Your task to perform on an android device: Open notification settings Image 0: 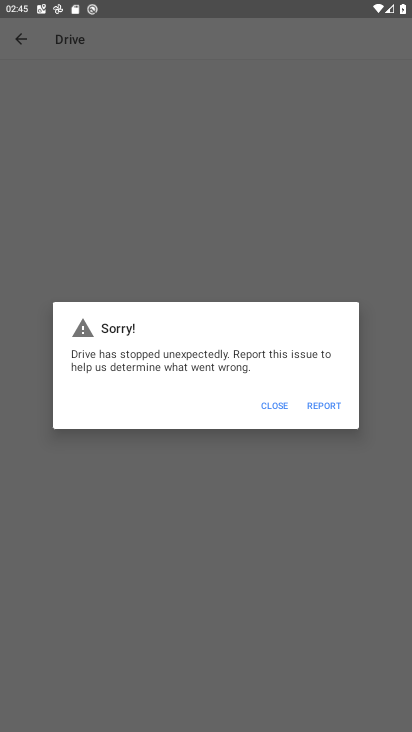
Step 0: press home button
Your task to perform on an android device: Open notification settings Image 1: 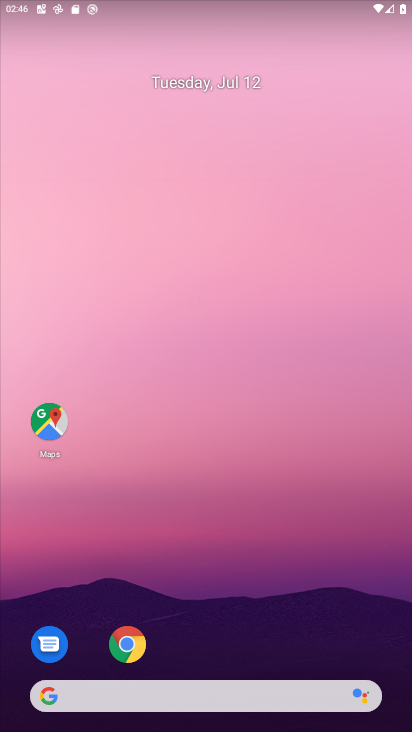
Step 1: drag from (236, 649) to (128, 82)
Your task to perform on an android device: Open notification settings Image 2: 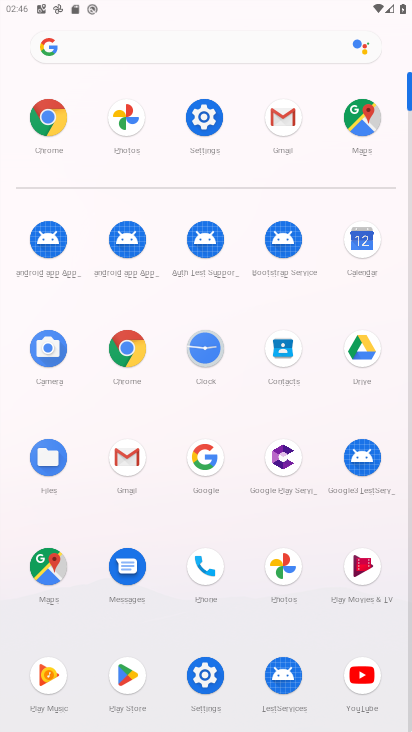
Step 2: click (208, 136)
Your task to perform on an android device: Open notification settings Image 3: 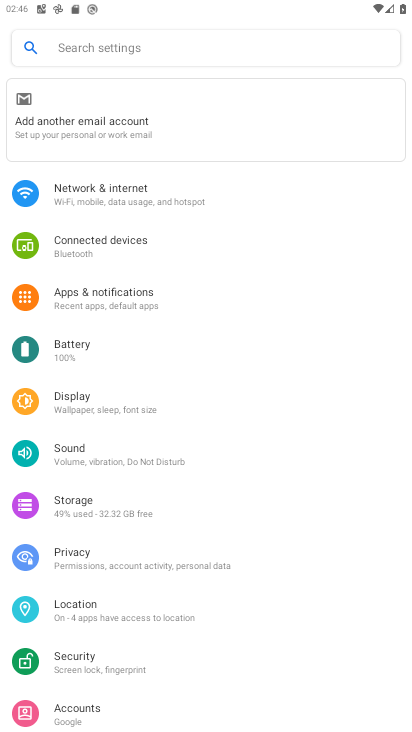
Step 3: click (112, 308)
Your task to perform on an android device: Open notification settings Image 4: 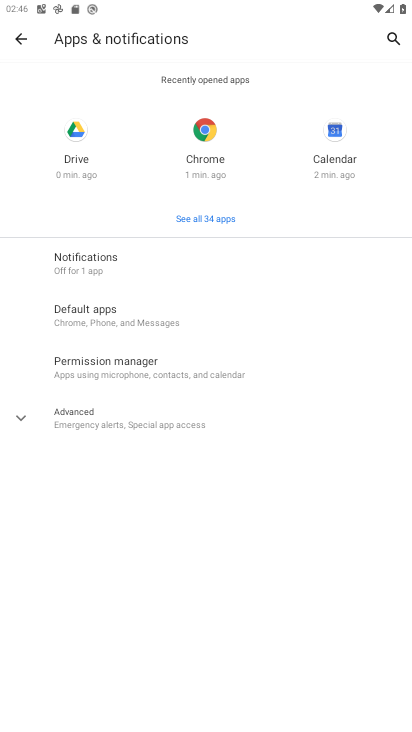
Step 4: task complete